Your task to perform on an android device: turn on sleep mode Image 0: 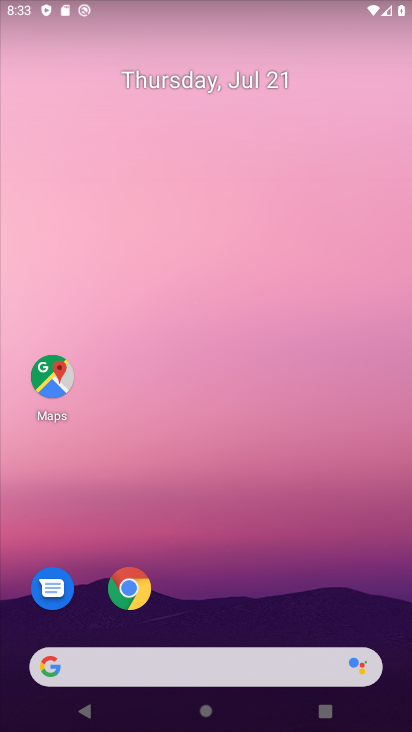
Step 0: drag from (233, 677) to (128, 273)
Your task to perform on an android device: turn on sleep mode Image 1: 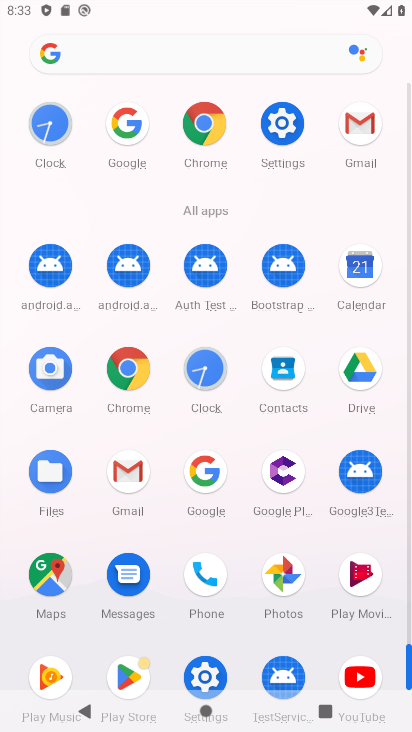
Step 1: click (270, 121)
Your task to perform on an android device: turn on sleep mode Image 2: 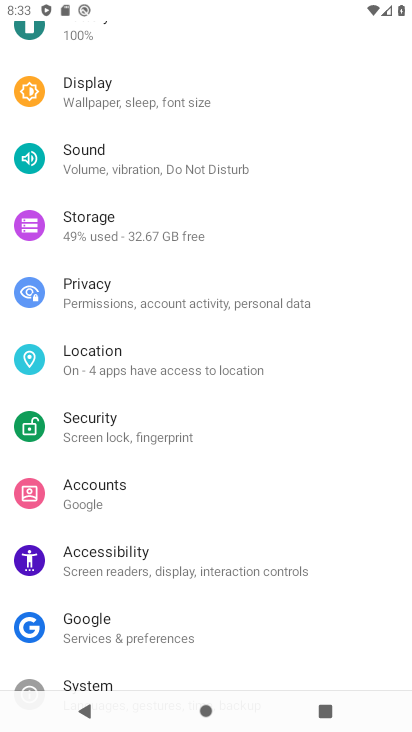
Step 2: drag from (108, 235) to (134, 521)
Your task to perform on an android device: turn on sleep mode Image 3: 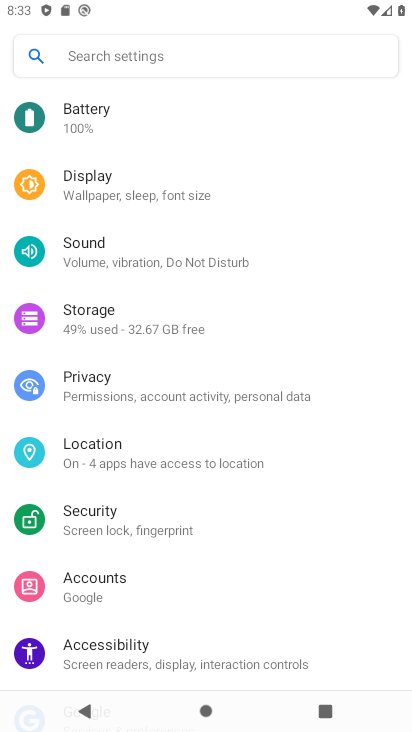
Step 3: click (84, 191)
Your task to perform on an android device: turn on sleep mode Image 4: 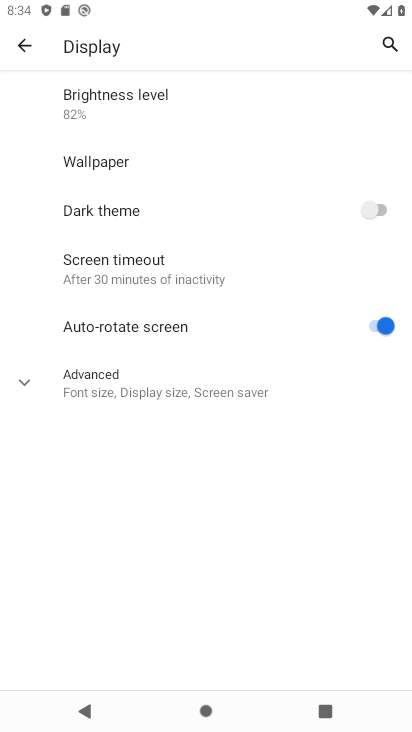
Step 4: click (125, 274)
Your task to perform on an android device: turn on sleep mode Image 5: 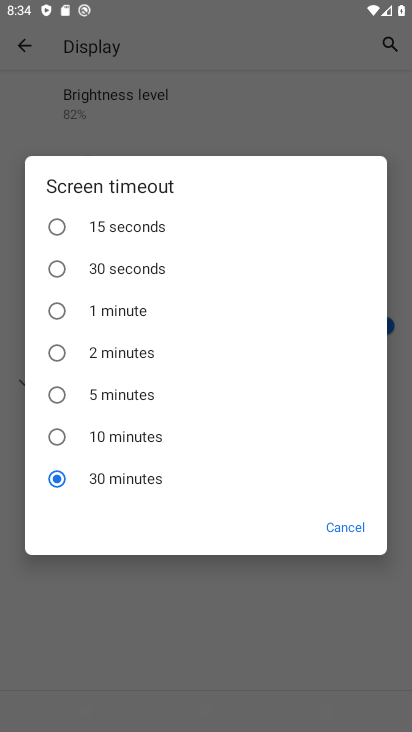
Step 5: task complete